Your task to perform on an android device: What's a good restaurant in Portland? Image 0: 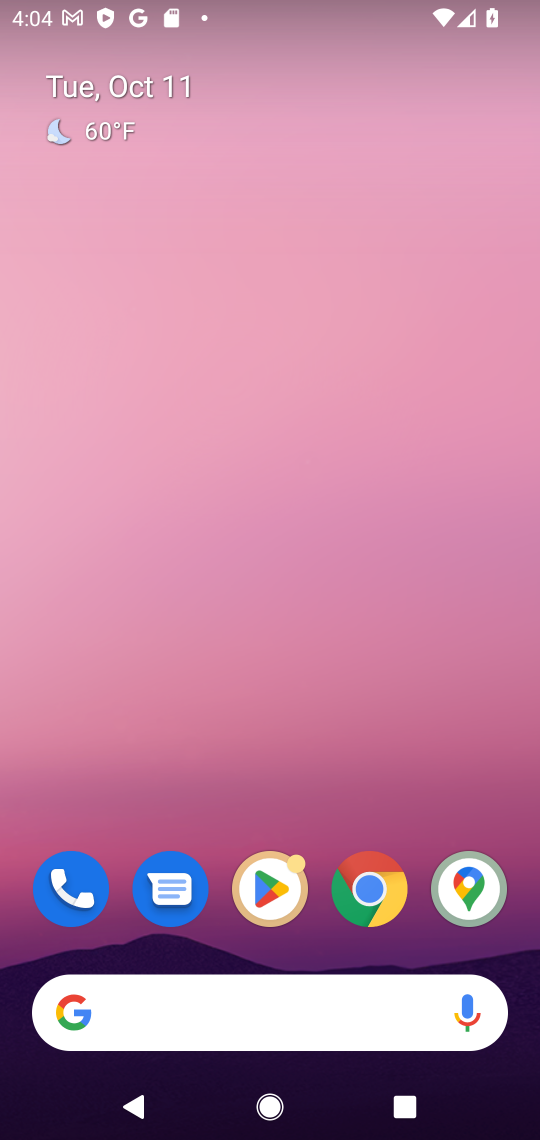
Step 0: drag from (232, 598) to (209, 336)
Your task to perform on an android device: What's a good restaurant in Portland? Image 1: 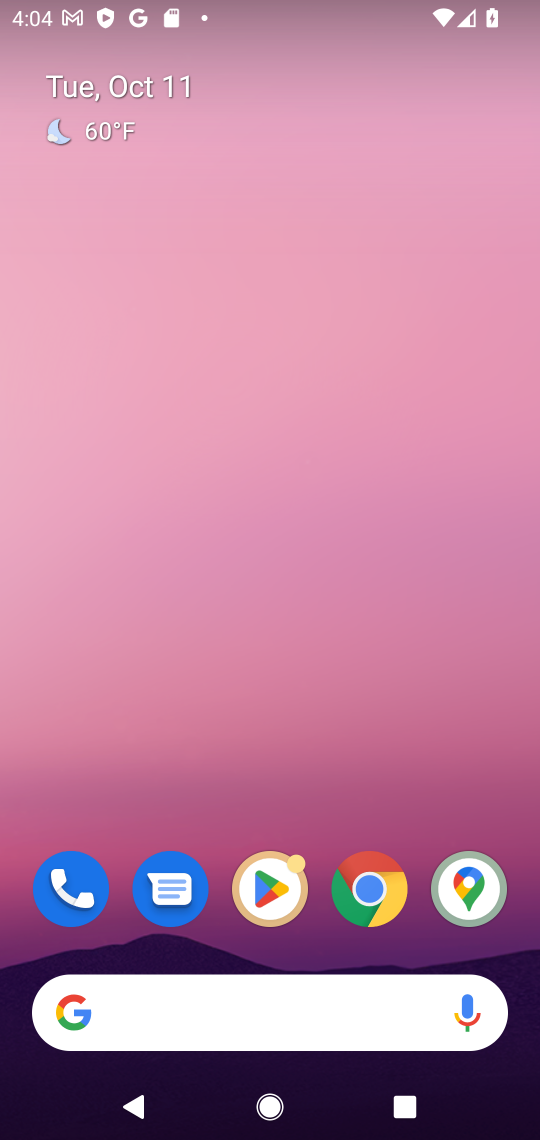
Step 1: drag from (304, 967) to (324, 361)
Your task to perform on an android device: What's a good restaurant in Portland? Image 2: 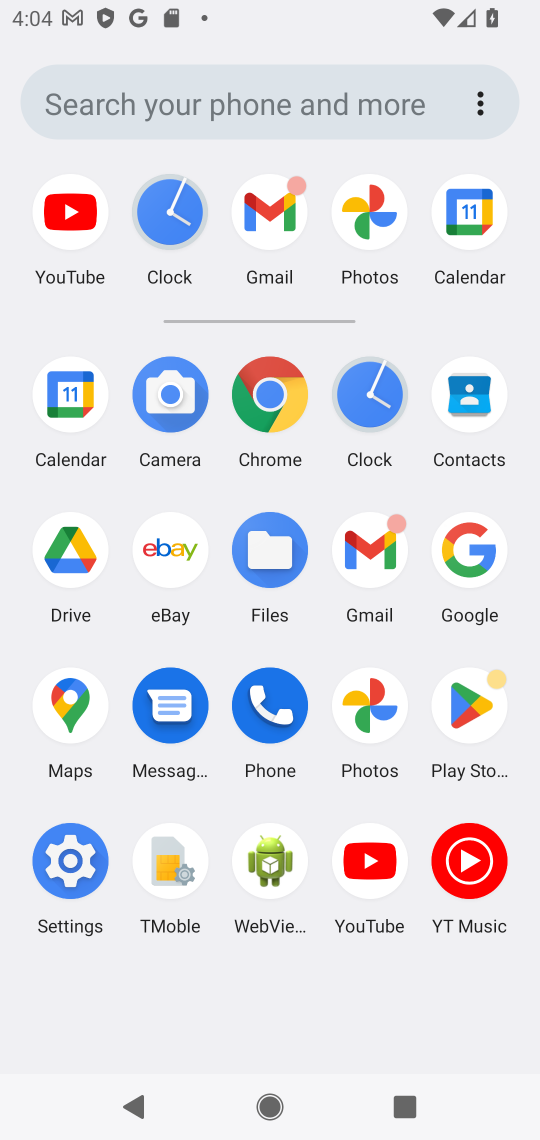
Step 2: click (467, 546)
Your task to perform on an android device: What's a good restaurant in Portland? Image 3: 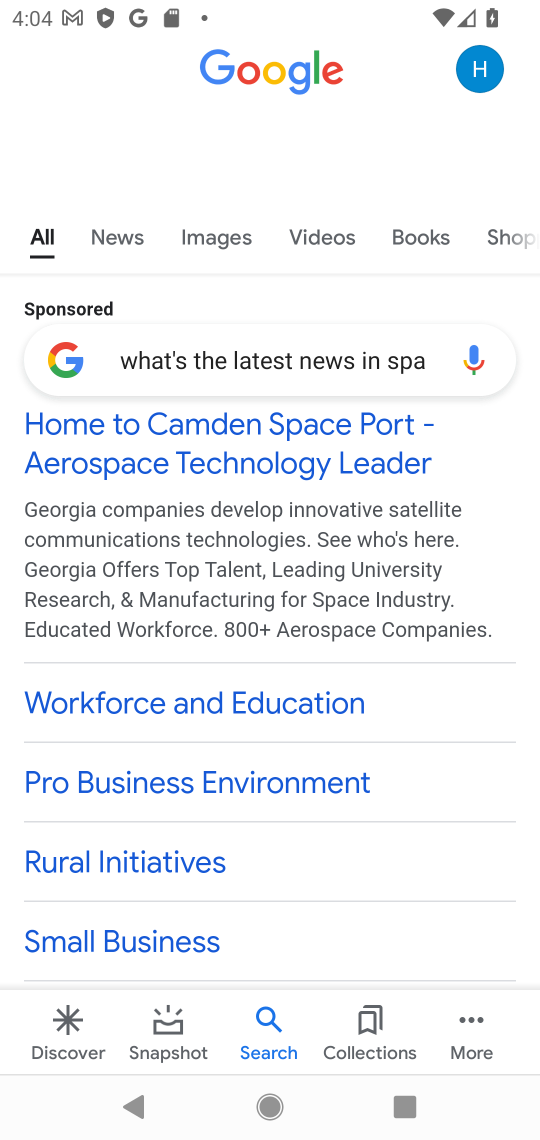
Step 3: click (309, 359)
Your task to perform on an android device: What's a good restaurant in Portland? Image 4: 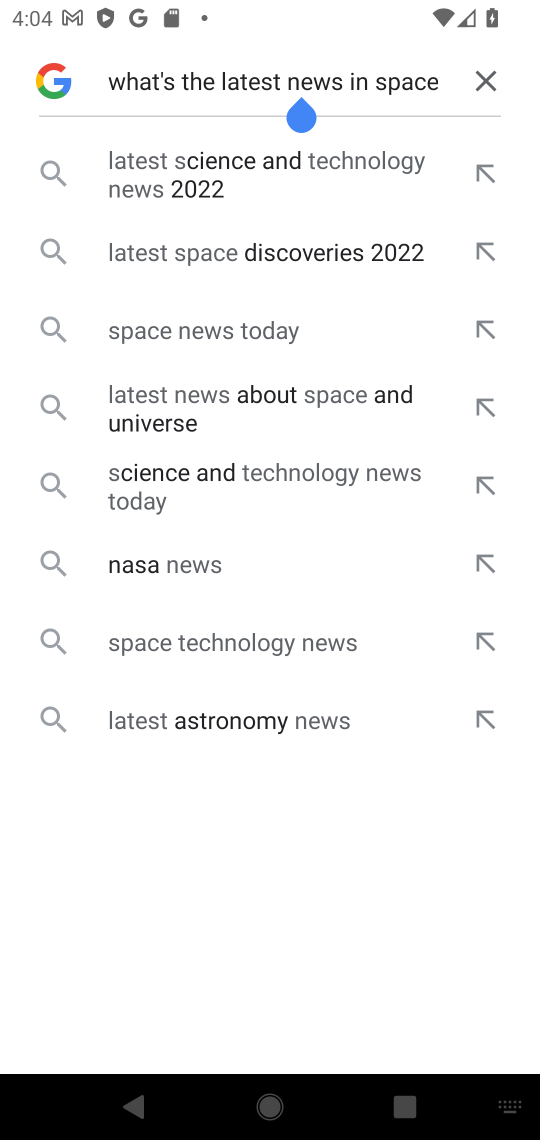
Step 4: click (490, 73)
Your task to perform on an android device: What's a good restaurant in Portland? Image 5: 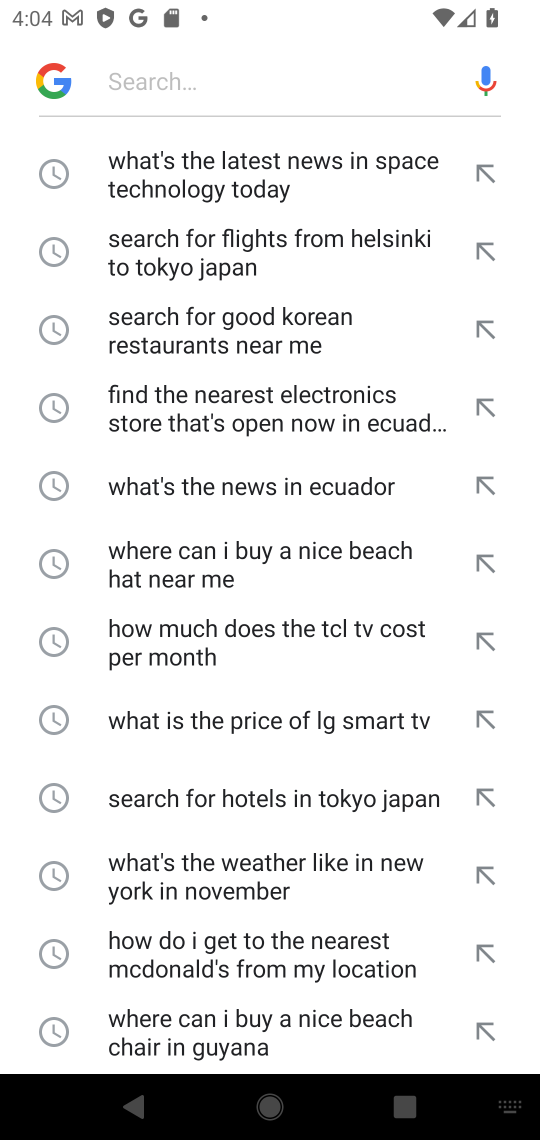
Step 5: click (230, 68)
Your task to perform on an android device: What's a good restaurant in Portland? Image 6: 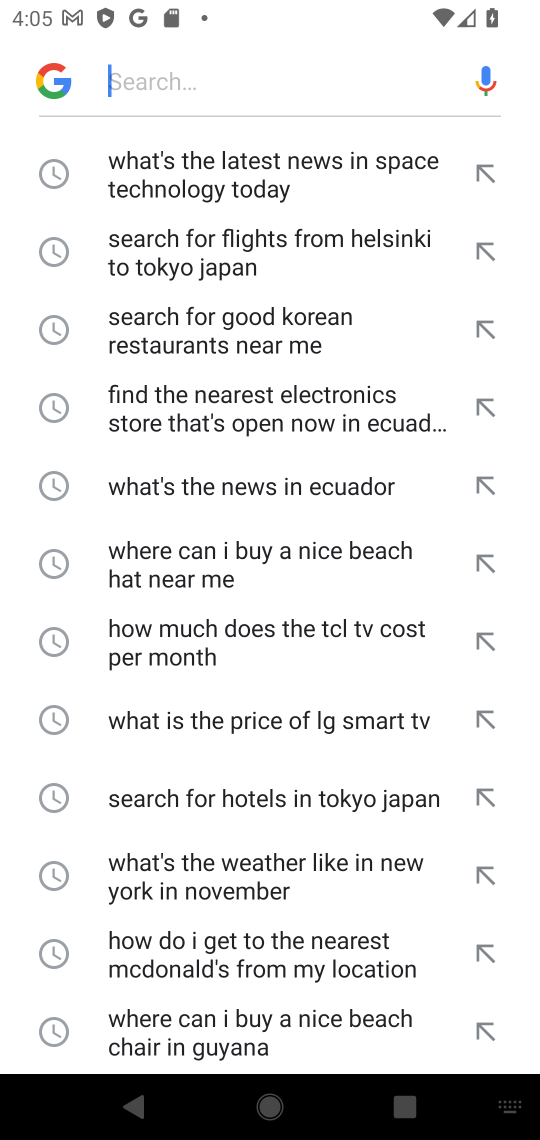
Step 6: type "What's a good restaurant in Portland? "
Your task to perform on an android device: What's a good restaurant in Portland? Image 7: 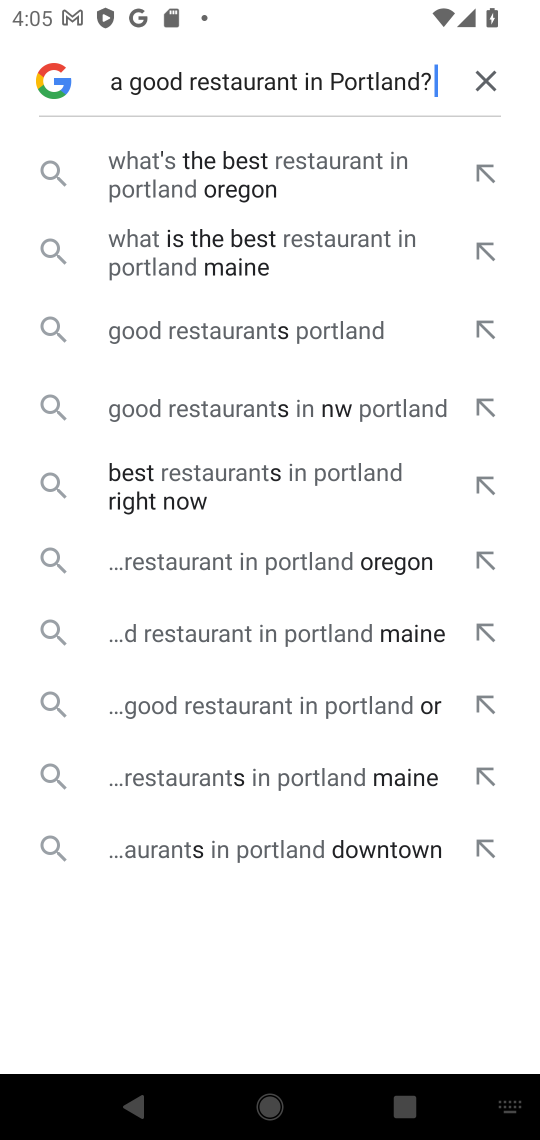
Step 7: click (193, 163)
Your task to perform on an android device: What's a good restaurant in Portland? Image 8: 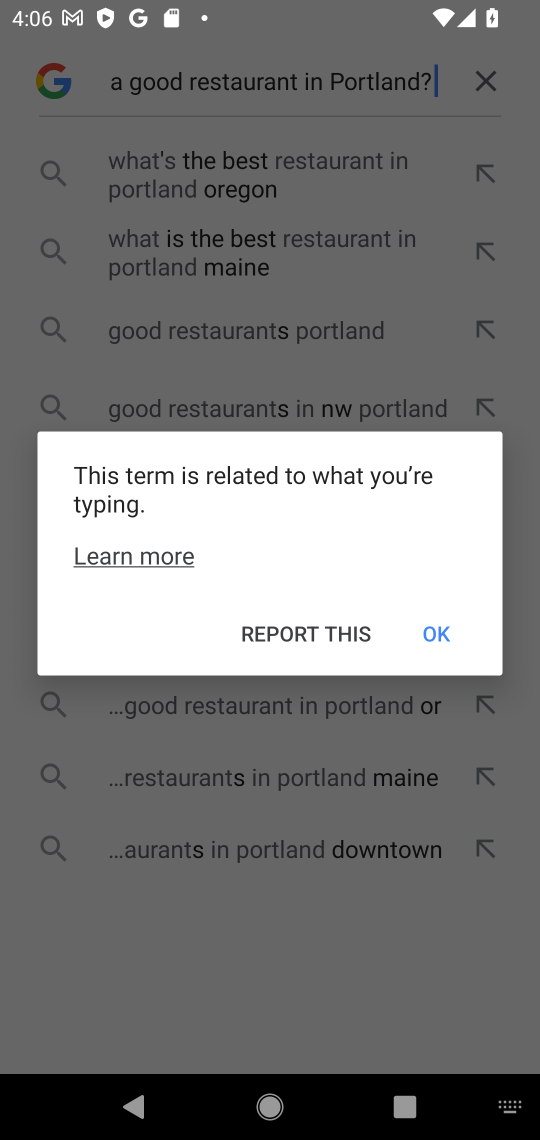
Step 8: click (415, 639)
Your task to perform on an android device: What's a good restaurant in Portland? Image 9: 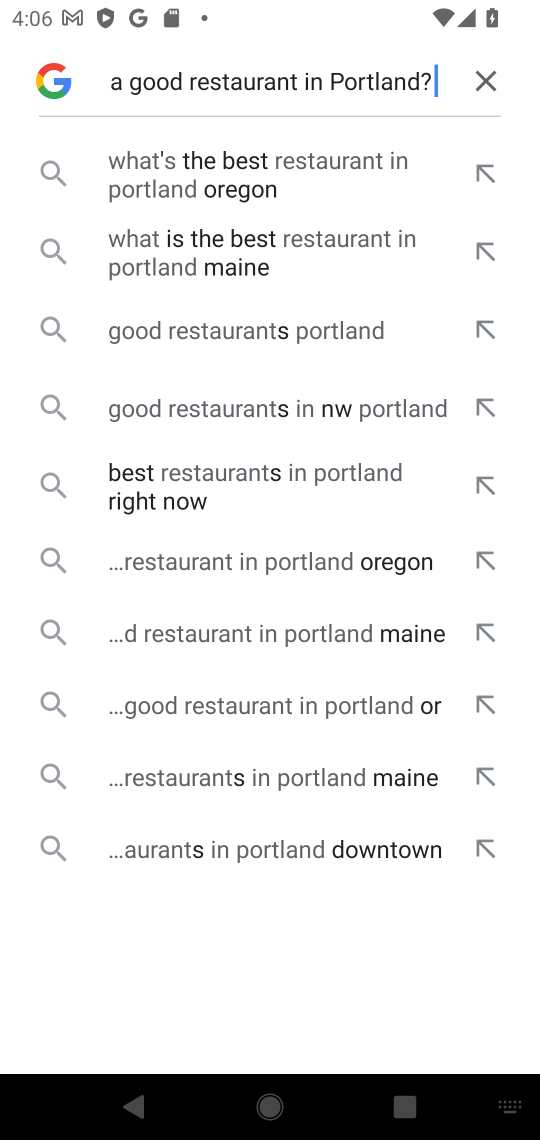
Step 9: click (308, 345)
Your task to perform on an android device: What's a good restaurant in Portland? Image 10: 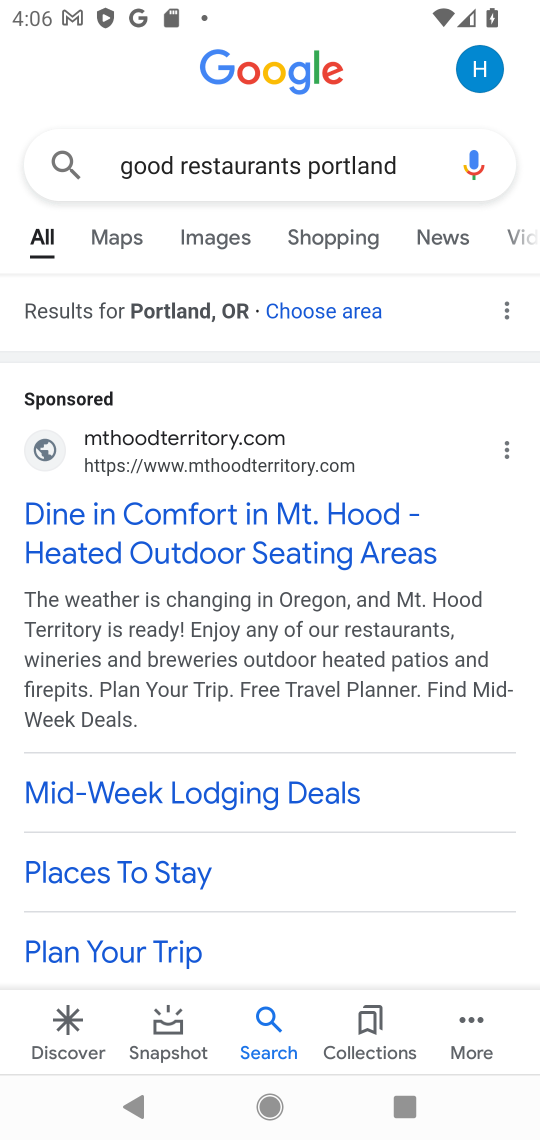
Step 10: click (186, 532)
Your task to perform on an android device: What's a good restaurant in Portland? Image 11: 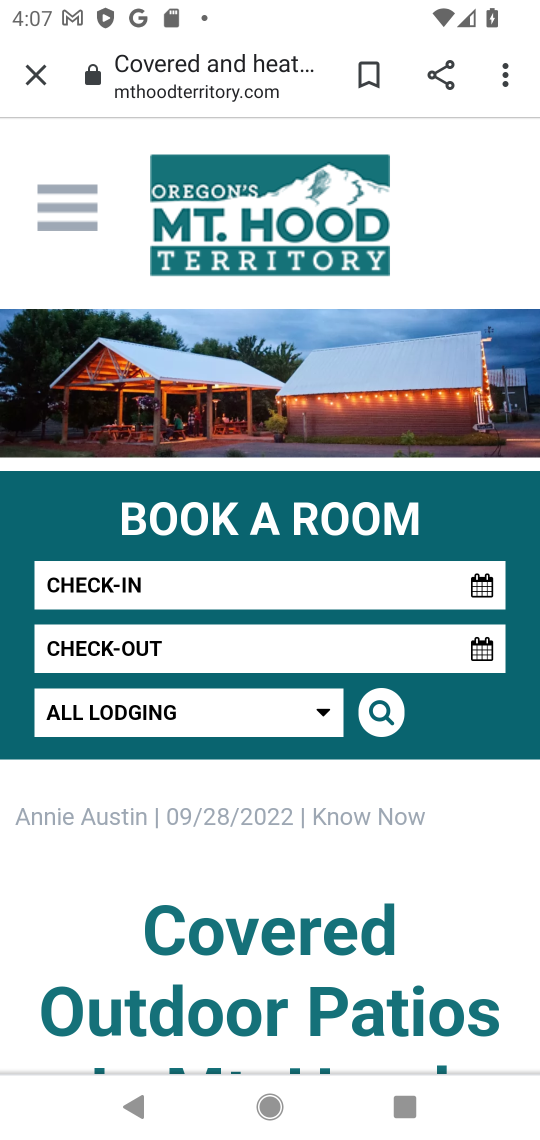
Step 11: click (42, 70)
Your task to perform on an android device: What's a good restaurant in Portland? Image 12: 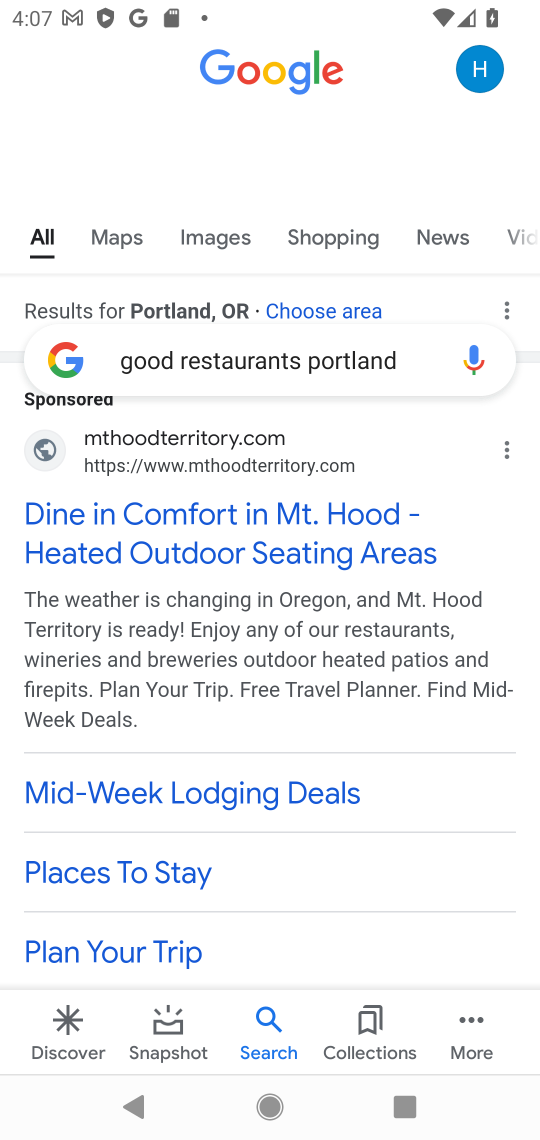
Step 12: drag from (309, 891) to (326, 600)
Your task to perform on an android device: What's a good restaurant in Portland? Image 13: 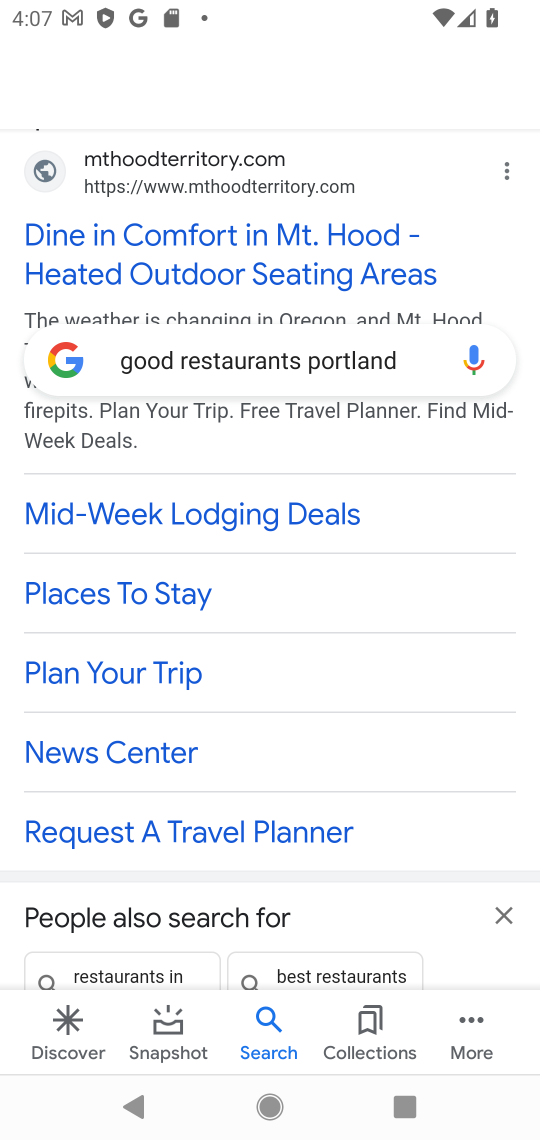
Step 13: click (197, 581)
Your task to perform on an android device: What's a good restaurant in Portland? Image 14: 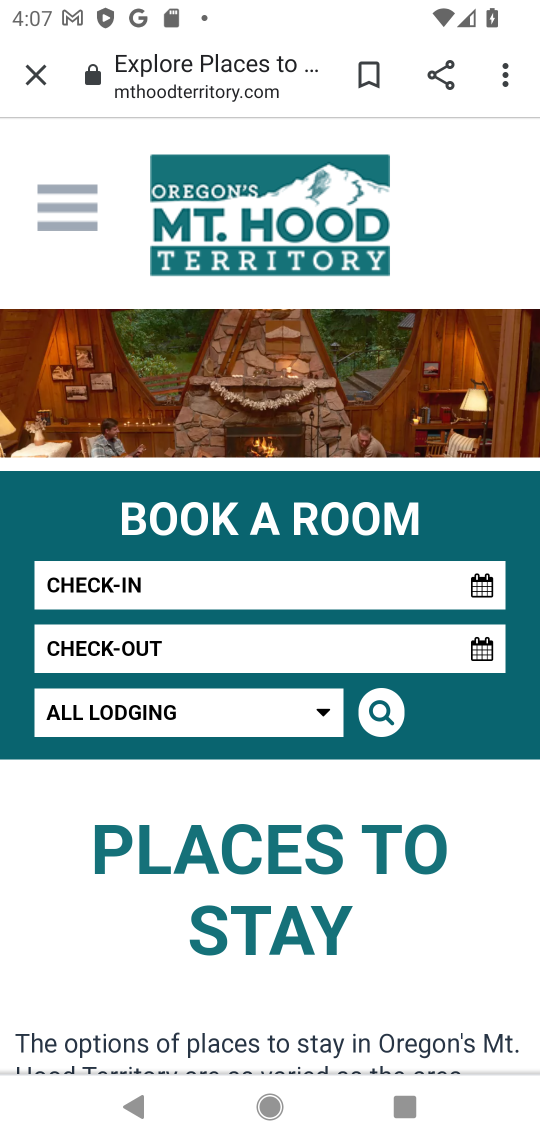
Step 14: click (28, 56)
Your task to perform on an android device: What's a good restaurant in Portland? Image 15: 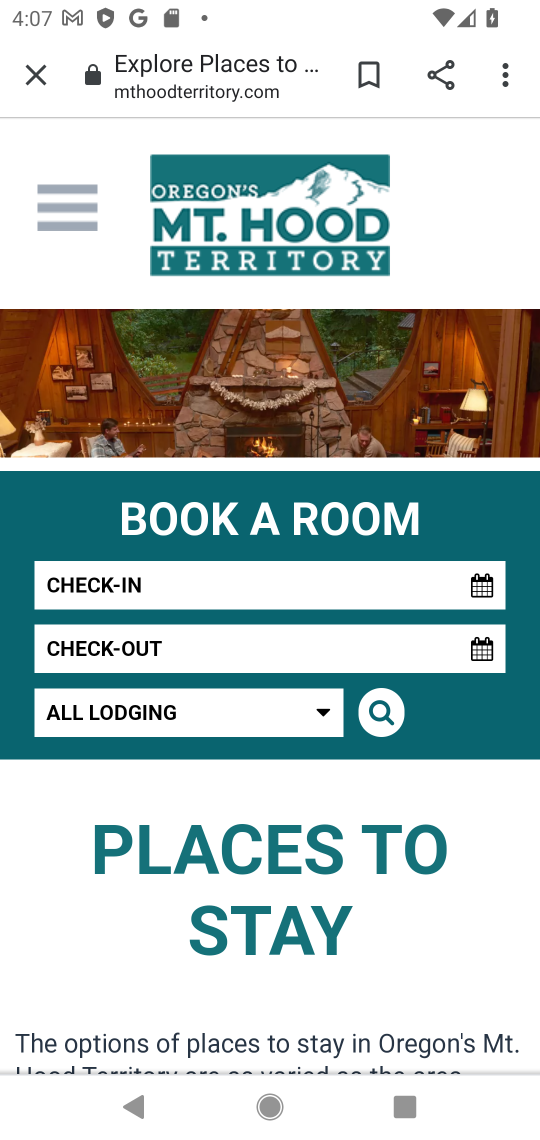
Step 15: click (55, 68)
Your task to perform on an android device: What's a good restaurant in Portland? Image 16: 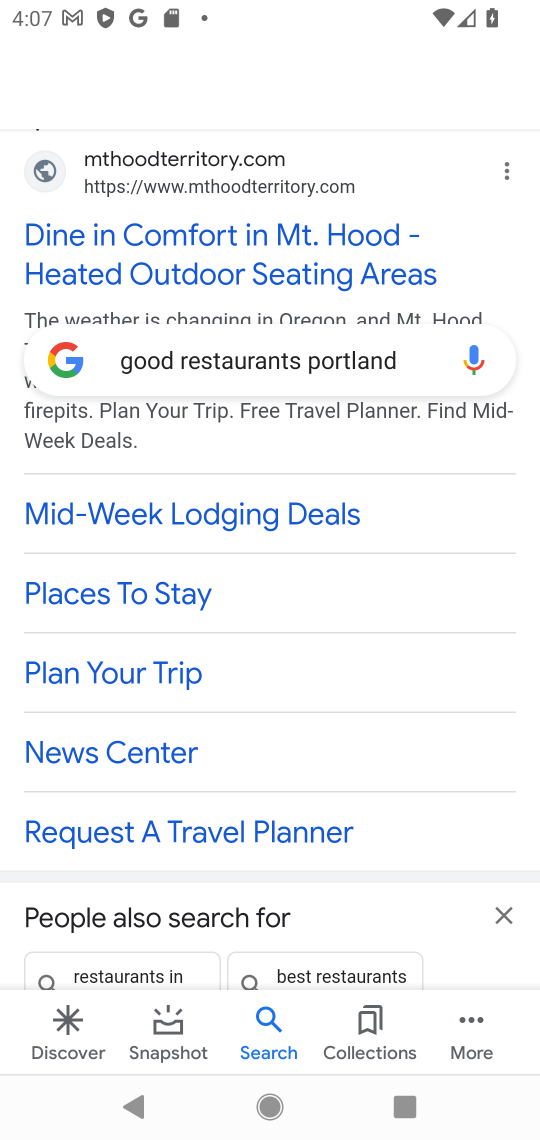
Step 16: drag from (372, 767) to (368, 234)
Your task to perform on an android device: What's a good restaurant in Portland? Image 17: 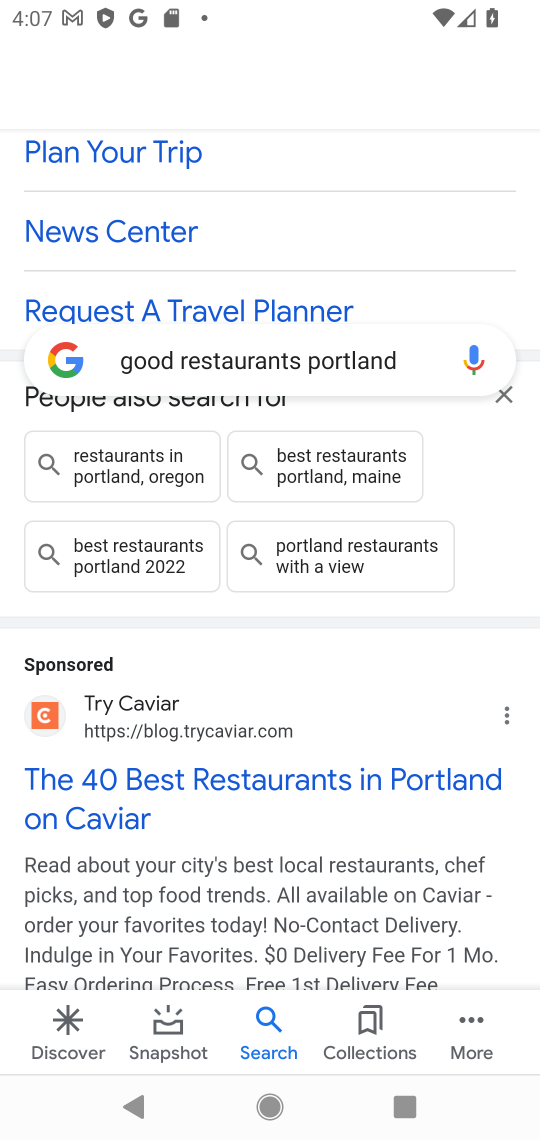
Step 17: click (254, 777)
Your task to perform on an android device: What's a good restaurant in Portland? Image 18: 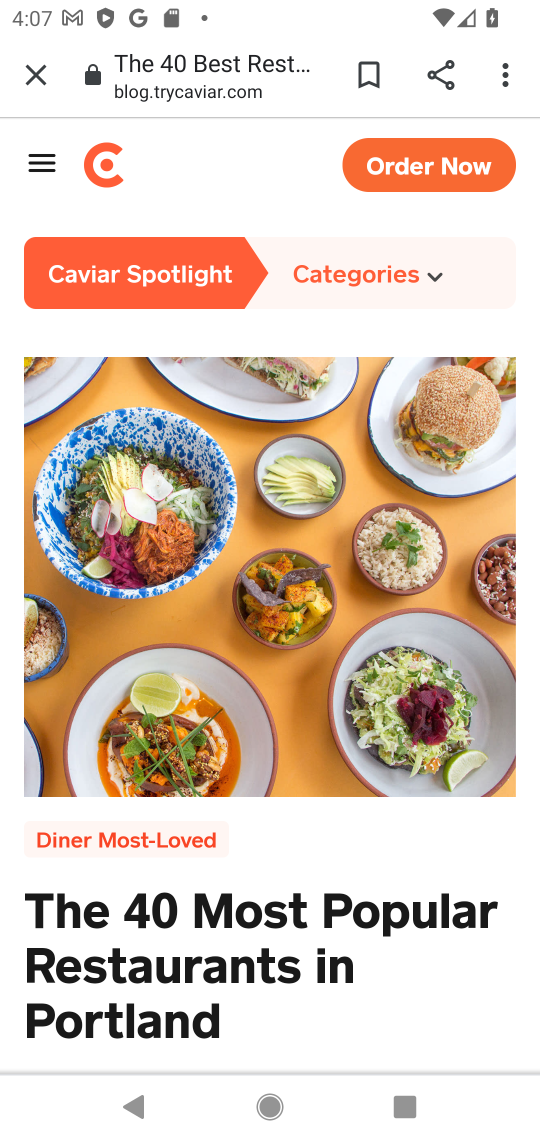
Step 18: task complete